Your task to perform on an android device: When is my next meeting? Image 0: 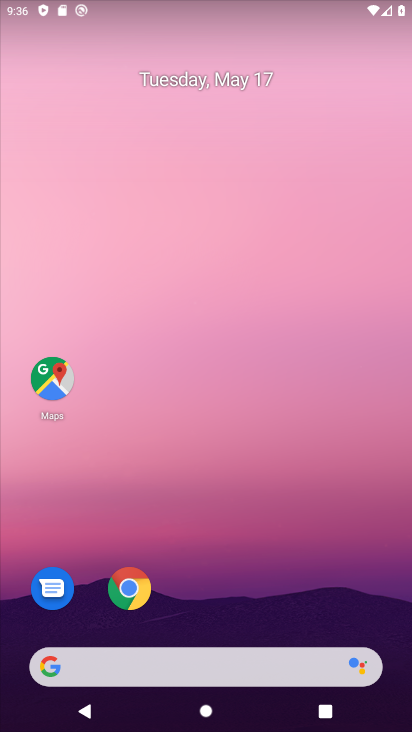
Step 0: drag from (235, 725) to (235, 150)
Your task to perform on an android device: When is my next meeting? Image 1: 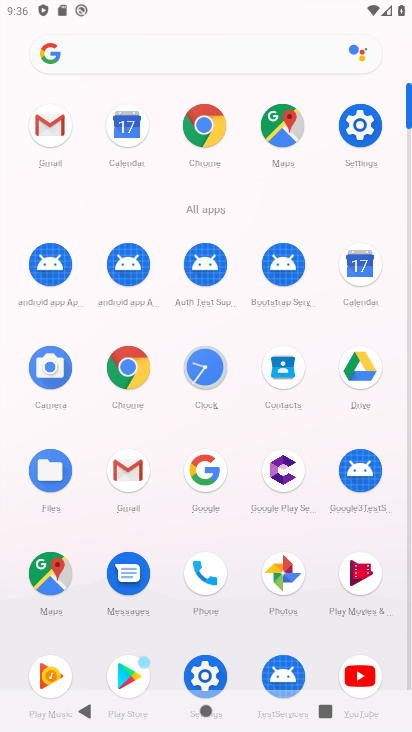
Step 1: click (366, 270)
Your task to perform on an android device: When is my next meeting? Image 2: 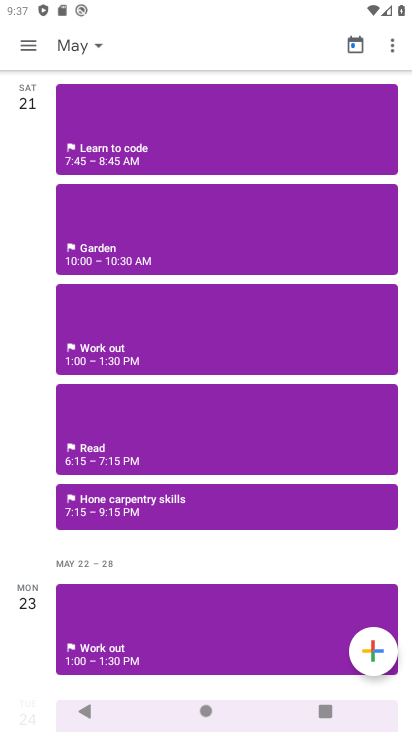
Step 2: click (67, 42)
Your task to perform on an android device: When is my next meeting? Image 3: 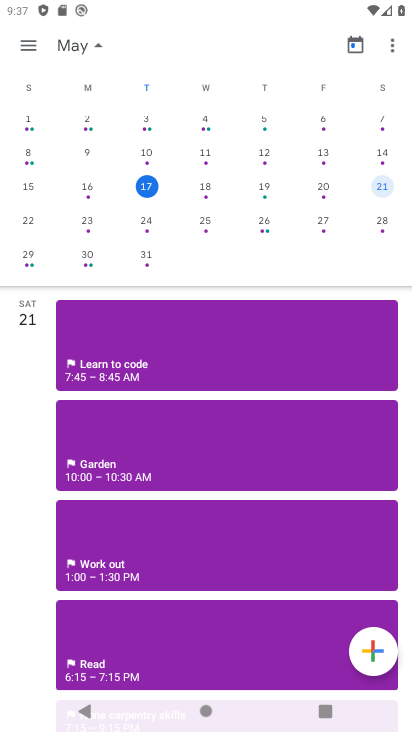
Step 3: click (207, 187)
Your task to perform on an android device: When is my next meeting? Image 4: 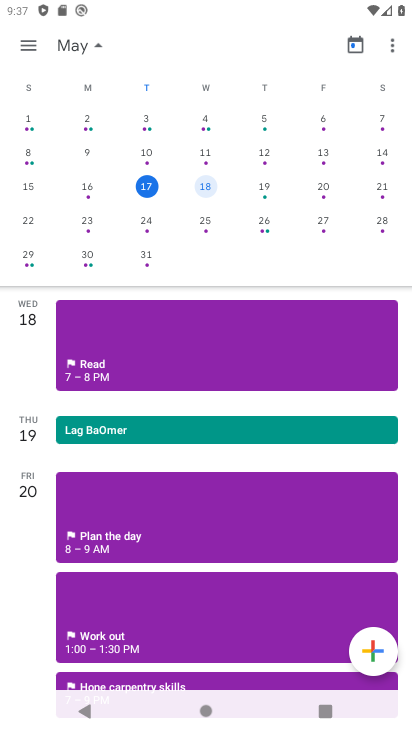
Step 4: click (206, 182)
Your task to perform on an android device: When is my next meeting? Image 5: 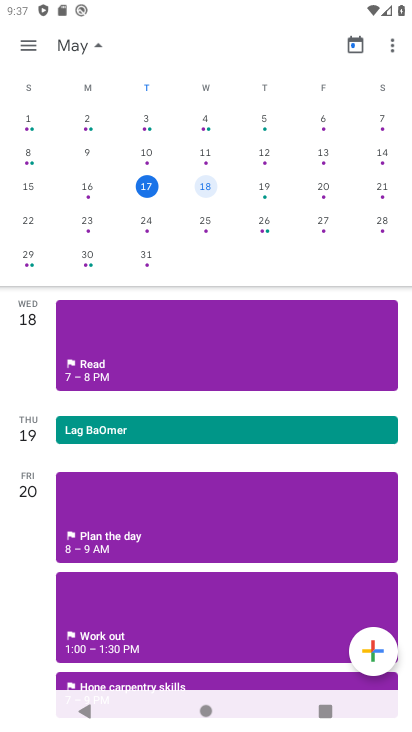
Step 5: click (202, 187)
Your task to perform on an android device: When is my next meeting? Image 6: 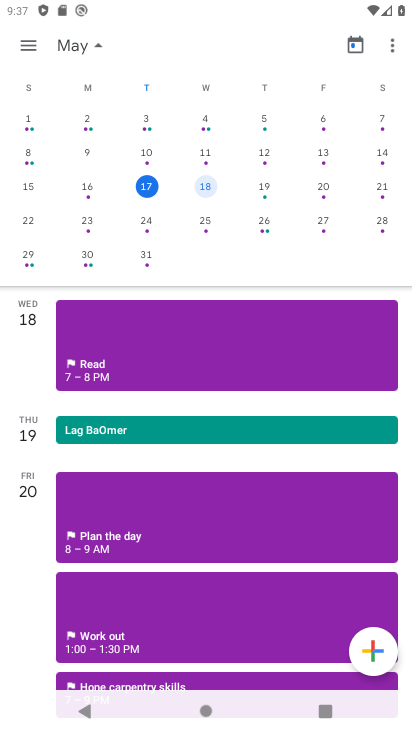
Step 6: task complete